Your task to perform on an android device: Open Maps and search for coffee Image 0: 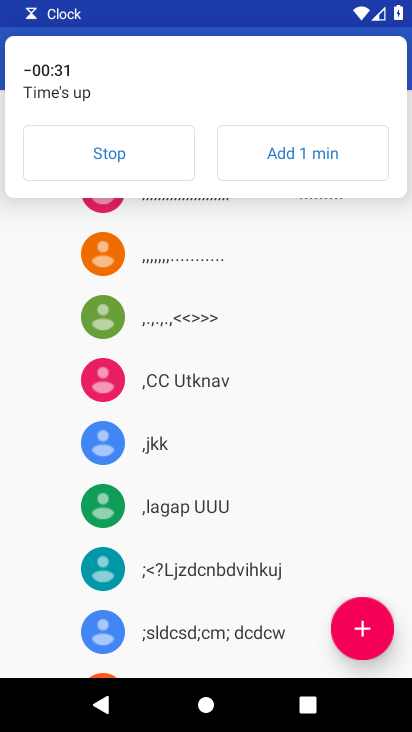
Step 0: click (84, 162)
Your task to perform on an android device: Open Maps and search for coffee Image 1: 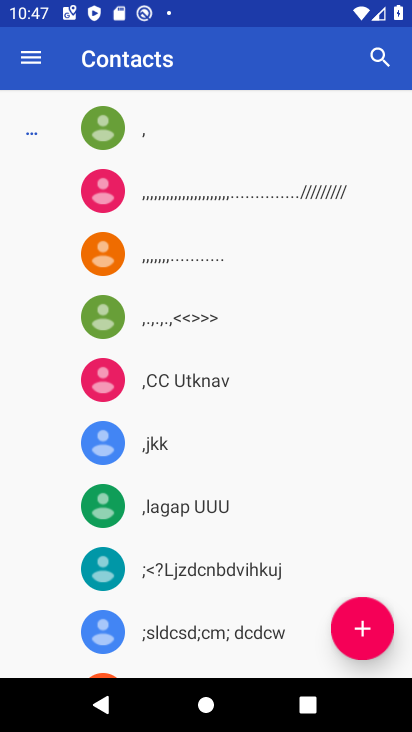
Step 1: press home button
Your task to perform on an android device: Open Maps and search for coffee Image 2: 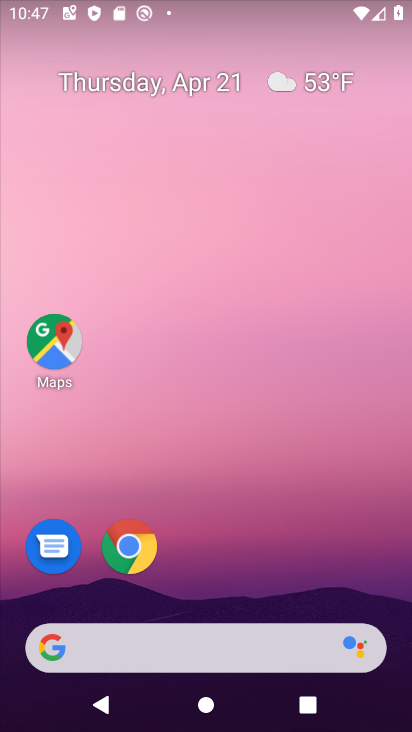
Step 2: click (43, 335)
Your task to perform on an android device: Open Maps and search for coffee Image 3: 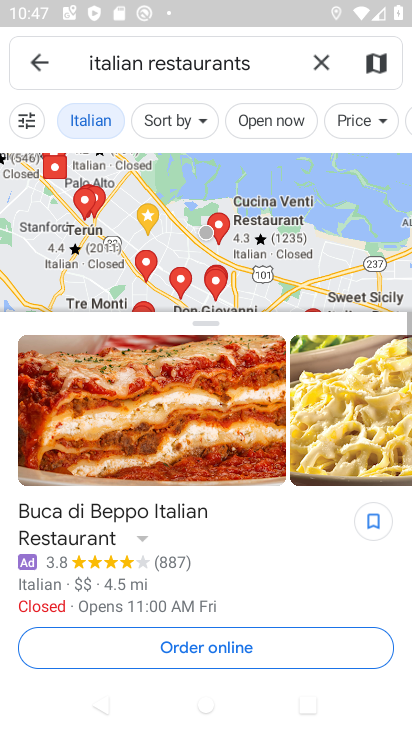
Step 3: click (319, 59)
Your task to perform on an android device: Open Maps and search for coffee Image 4: 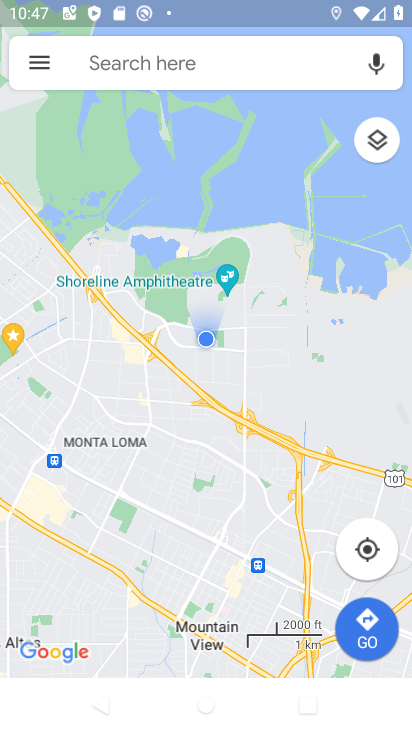
Step 4: click (161, 63)
Your task to perform on an android device: Open Maps and search for coffee Image 5: 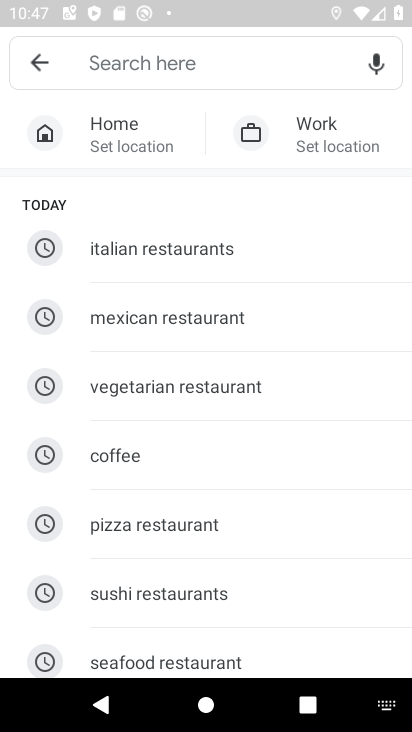
Step 5: click (133, 460)
Your task to perform on an android device: Open Maps and search for coffee Image 6: 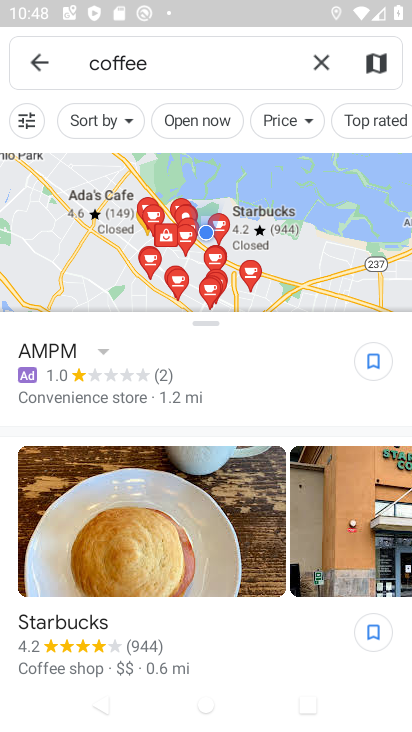
Step 6: task complete